Your task to perform on an android device: turn on priority inbox in the gmail app Image 0: 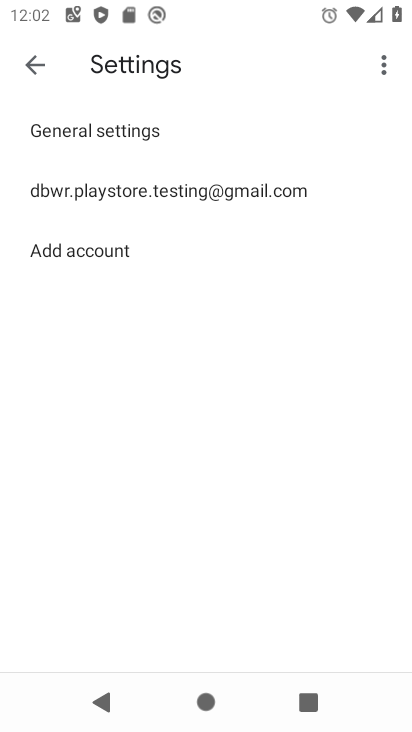
Step 0: click (174, 187)
Your task to perform on an android device: turn on priority inbox in the gmail app Image 1: 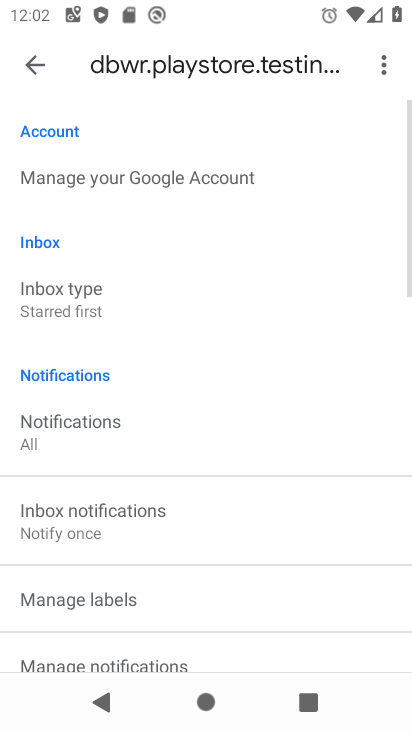
Step 1: click (67, 306)
Your task to perform on an android device: turn on priority inbox in the gmail app Image 2: 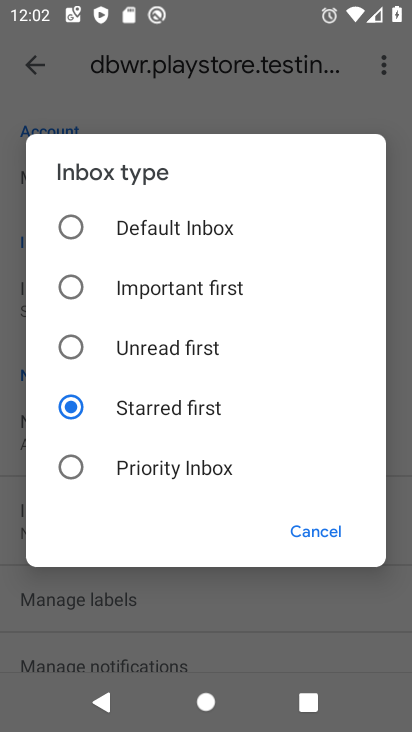
Step 2: click (137, 473)
Your task to perform on an android device: turn on priority inbox in the gmail app Image 3: 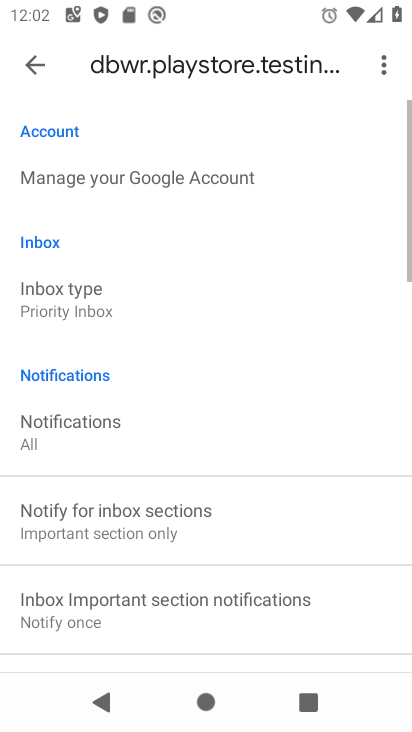
Step 3: task complete